Your task to perform on an android device: open sync settings in chrome Image 0: 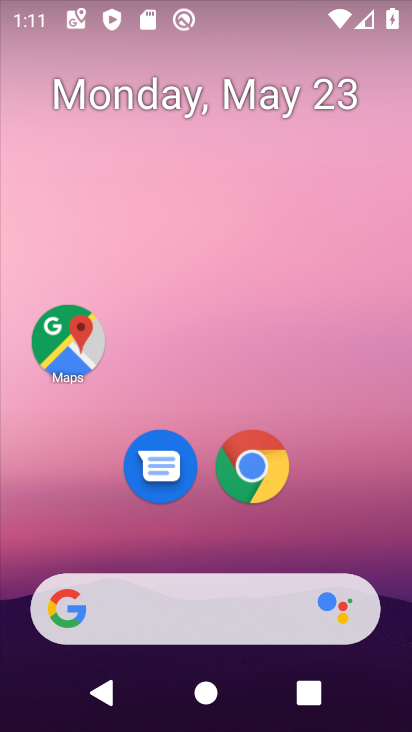
Step 0: click (252, 466)
Your task to perform on an android device: open sync settings in chrome Image 1: 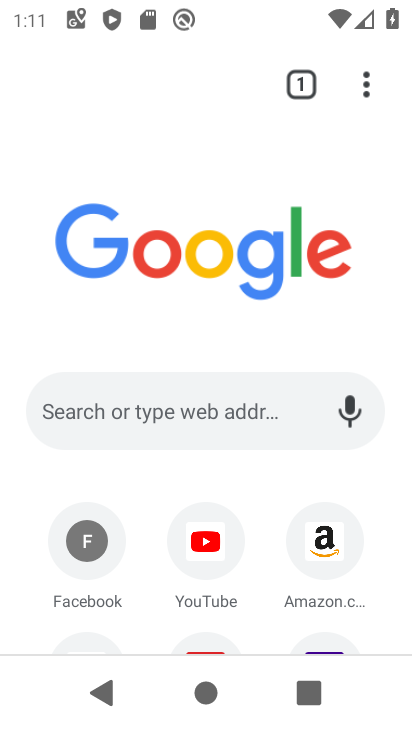
Step 1: click (365, 85)
Your task to perform on an android device: open sync settings in chrome Image 2: 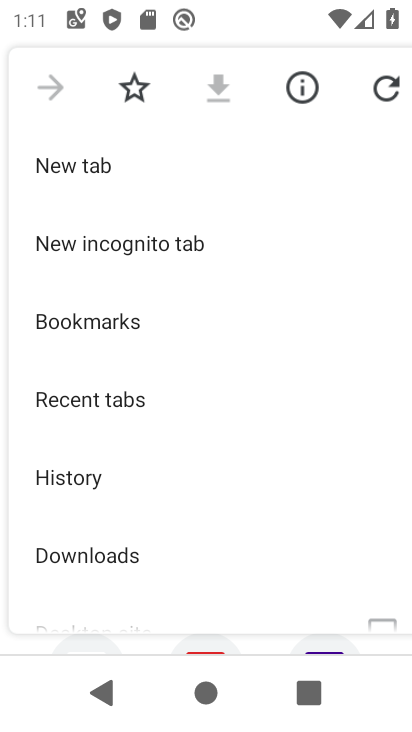
Step 2: drag from (133, 425) to (181, 350)
Your task to perform on an android device: open sync settings in chrome Image 3: 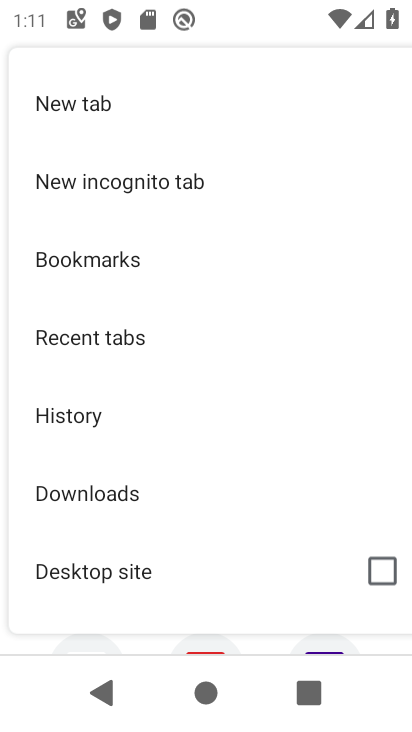
Step 3: drag from (85, 454) to (120, 393)
Your task to perform on an android device: open sync settings in chrome Image 4: 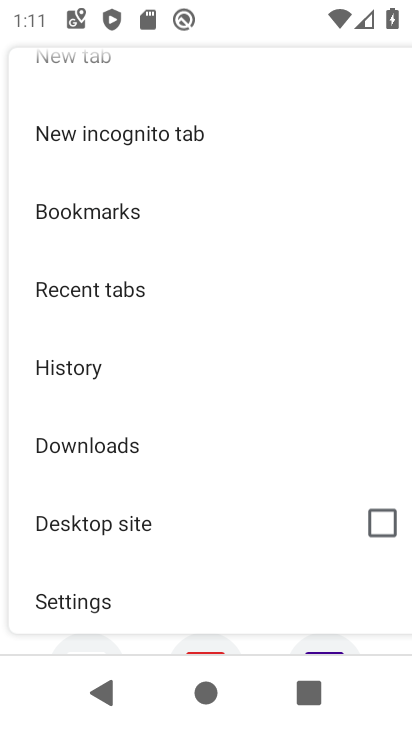
Step 4: drag from (76, 474) to (138, 380)
Your task to perform on an android device: open sync settings in chrome Image 5: 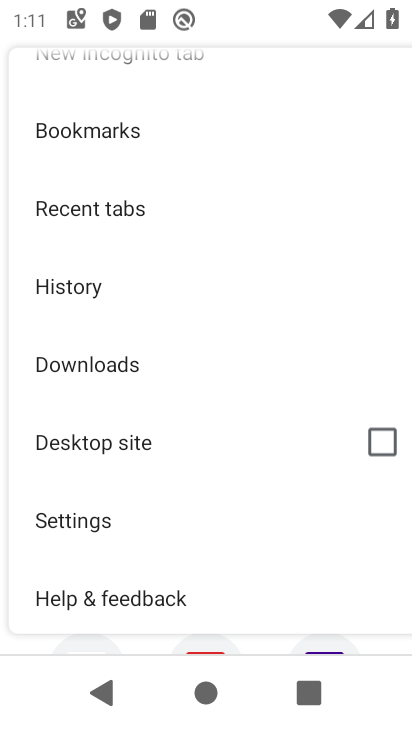
Step 5: click (80, 517)
Your task to perform on an android device: open sync settings in chrome Image 6: 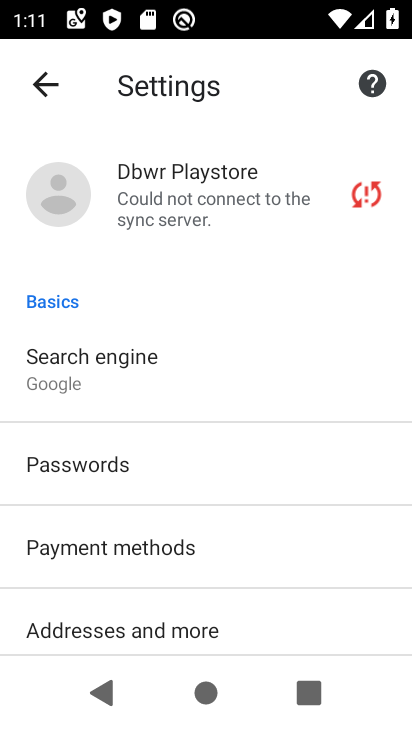
Step 6: drag from (74, 518) to (132, 442)
Your task to perform on an android device: open sync settings in chrome Image 7: 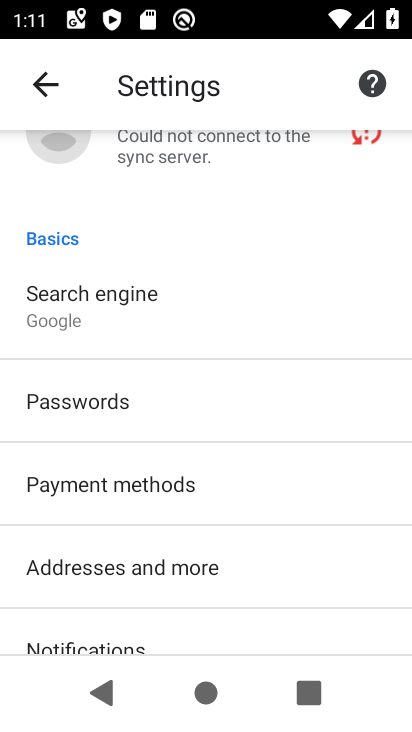
Step 7: drag from (88, 533) to (124, 477)
Your task to perform on an android device: open sync settings in chrome Image 8: 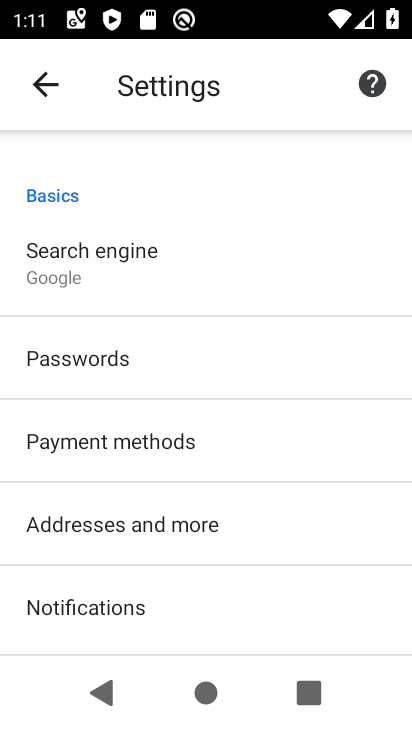
Step 8: drag from (78, 546) to (114, 477)
Your task to perform on an android device: open sync settings in chrome Image 9: 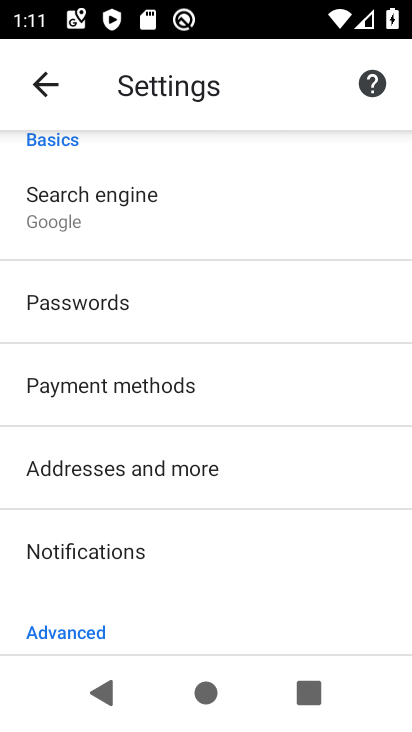
Step 9: drag from (82, 526) to (122, 444)
Your task to perform on an android device: open sync settings in chrome Image 10: 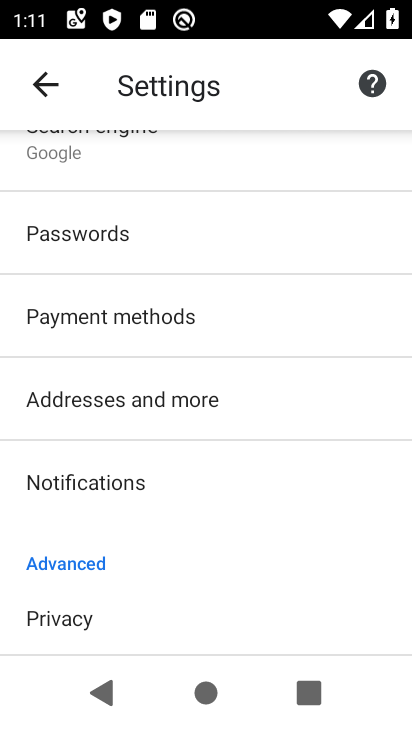
Step 10: drag from (70, 521) to (129, 442)
Your task to perform on an android device: open sync settings in chrome Image 11: 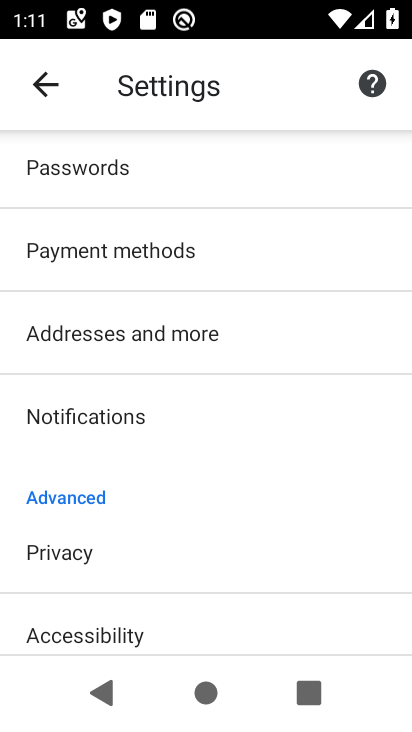
Step 11: drag from (77, 522) to (145, 436)
Your task to perform on an android device: open sync settings in chrome Image 12: 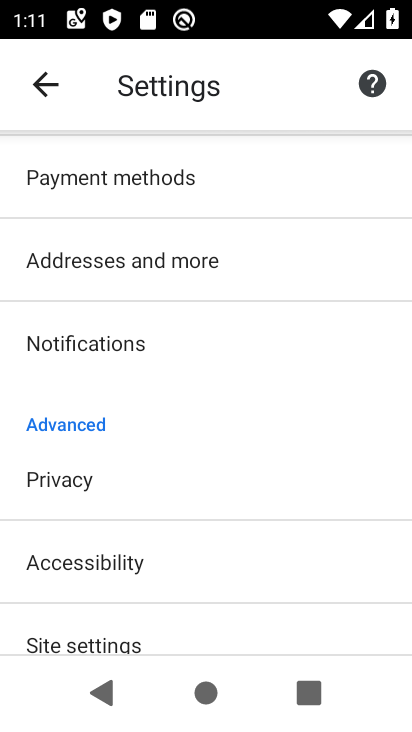
Step 12: drag from (82, 540) to (147, 465)
Your task to perform on an android device: open sync settings in chrome Image 13: 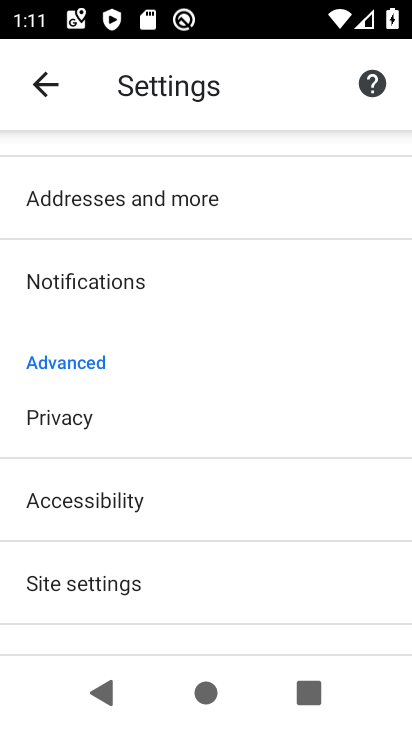
Step 13: click (98, 590)
Your task to perform on an android device: open sync settings in chrome Image 14: 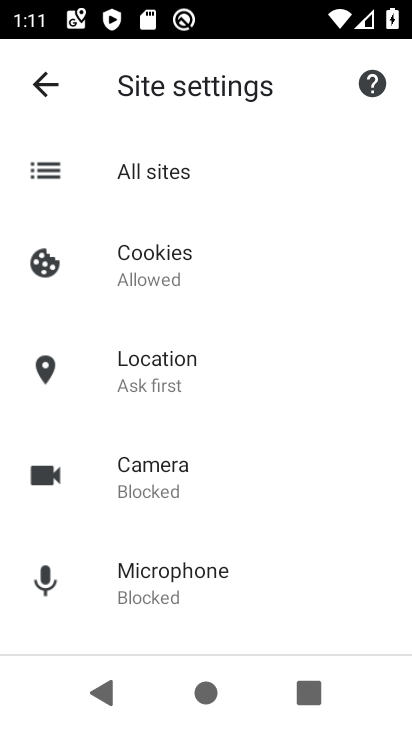
Step 14: drag from (139, 525) to (189, 440)
Your task to perform on an android device: open sync settings in chrome Image 15: 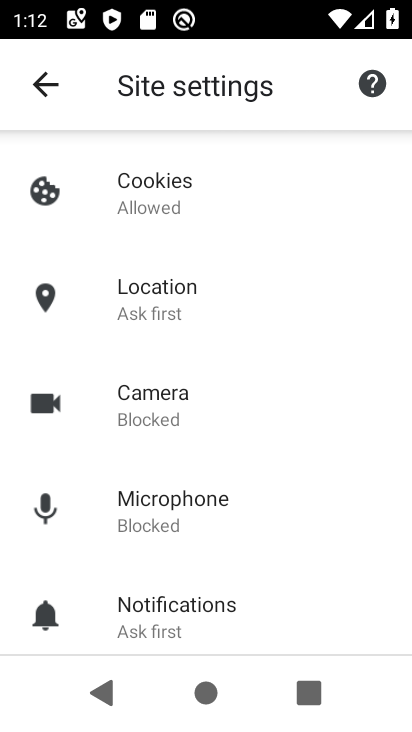
Step 15: drag from (142, 549) to (205, 456)
Your task to perform on an android device: open sync settings in chrome Image 16: 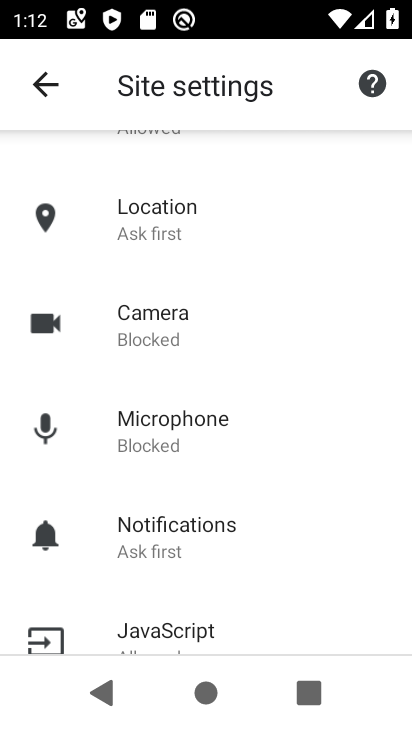
Step 16: drag from (147, 565) to (202, 470)
Your task to perform on an android device: open sync settings in chrome Image 17: 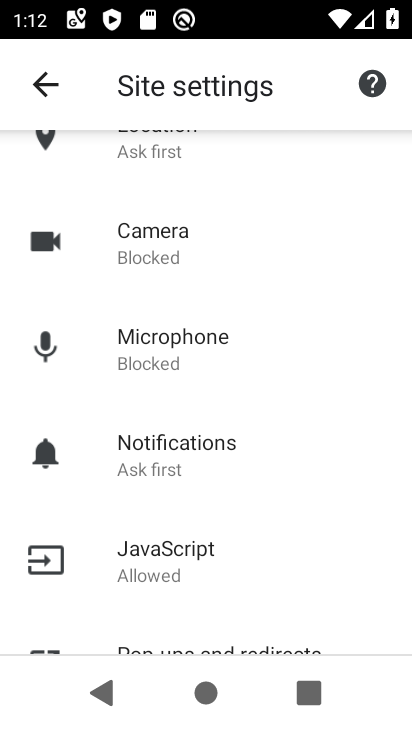
Step 17: drag from (140, 604) to (198, 510)
Your task to perform on an android device: open sync settings in chrome Image 18: 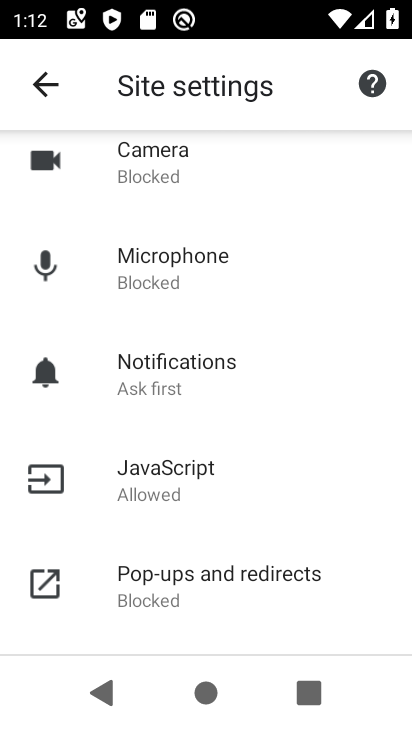
Step 18: drag from (153, 552) to (250, 445)
Your task to perform on an android device: open sync settings in chrome Image 19: 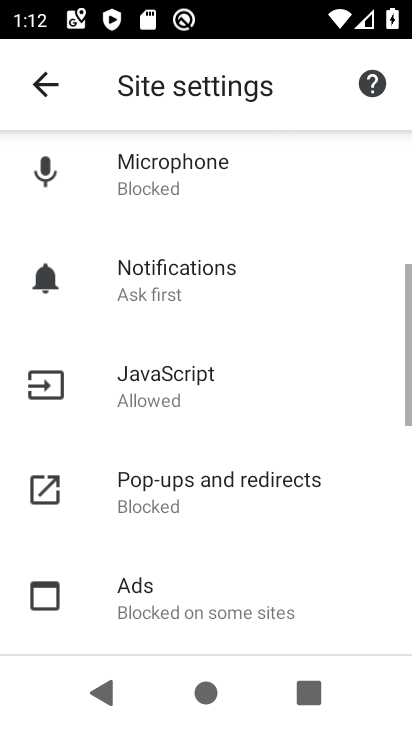
Step 19: drag from (147, 541) to (232, 446)
Your task to perform on an android device: open sync settings in chrome Image 20: 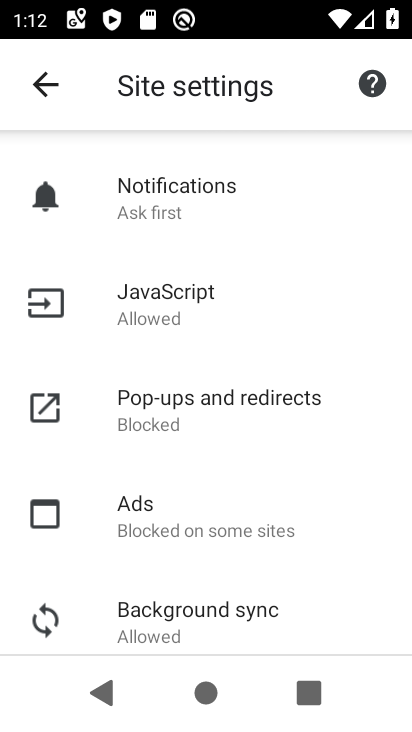
Step 20: drag from (150, 551) to (247, 449)
Your task to perform on an android device: open sync settings in chrome Image 21: 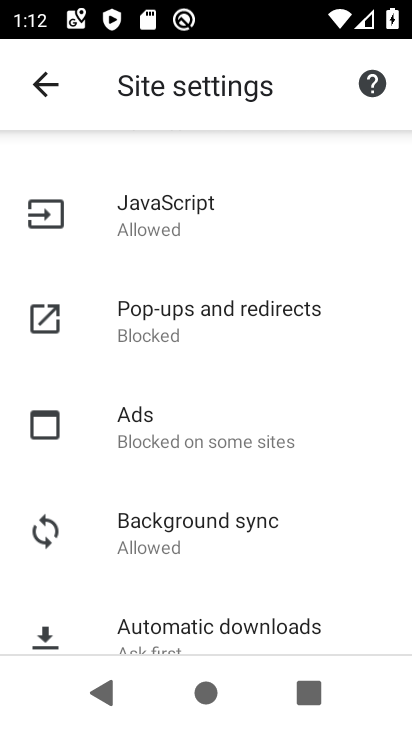
Step 21: click (164, 529)
Your task to perform on an android device: open sync settings in chrome Image 22: 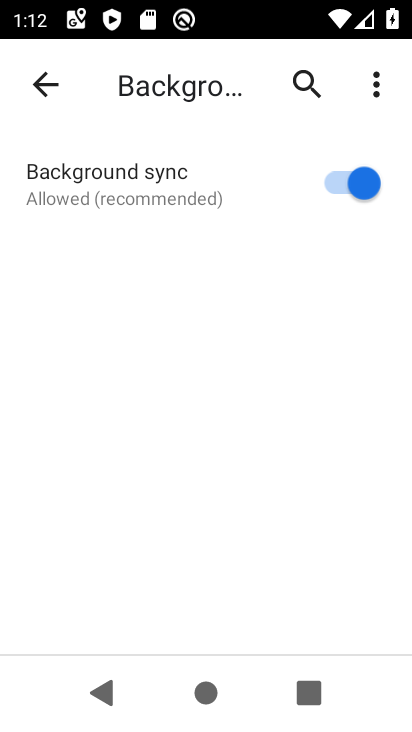
Step 22: task complete